Your task to perform on an android device: Go to privacy settings Image 0: 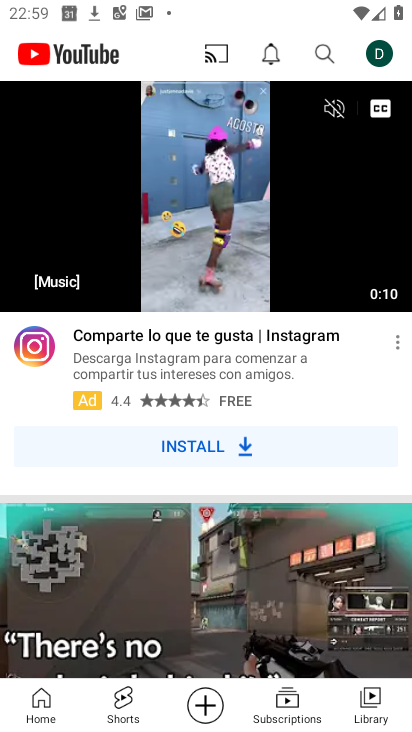
Step 0: press home button
Your task to perform on an android device: Go to privacy settings Image 1: 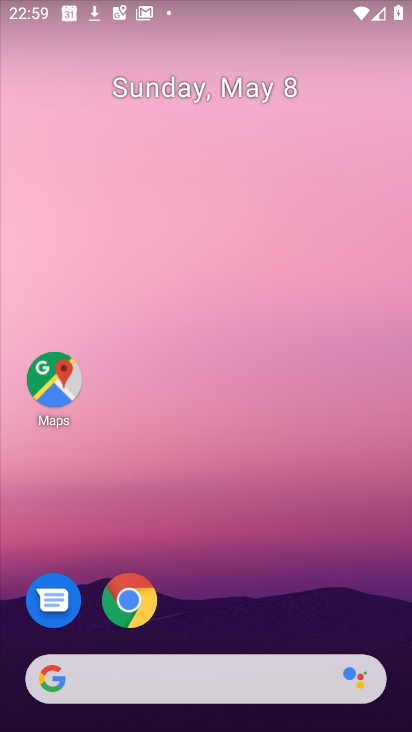
Step 1: drag from (248, 705) to (175, 201)
Your task to perform on an android device: Go to privacy settings Image 2: 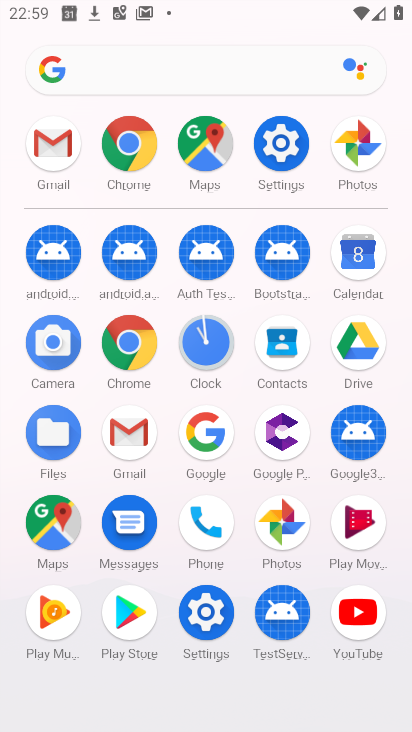
Step 2: click (273, 155)
Your task to perform on an android device: Go to privacy settings Image 3: 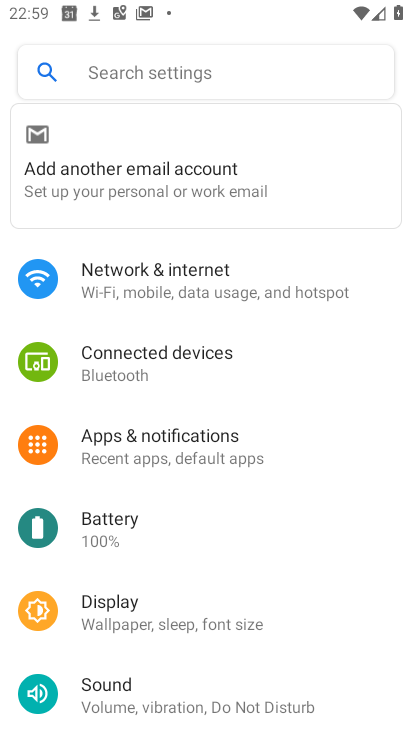
Step 3: drag from (234, 489) to (241, 282)
Your task to perform on an android device: Go to privacy settings Image 4: 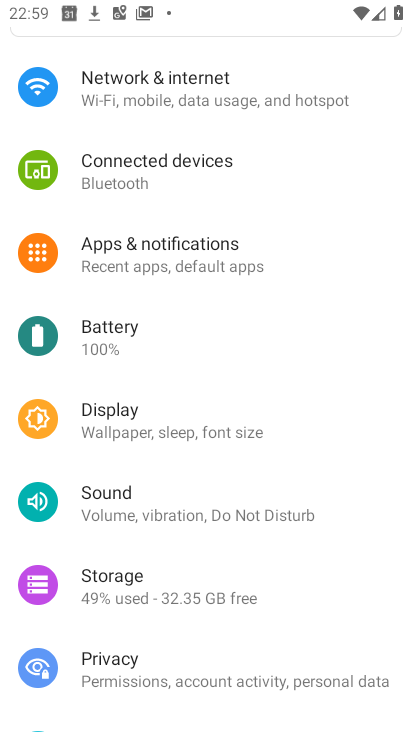
Step 4: click (130, 663)
Your task to perform on an android device: Go to privacy settings Image 5: 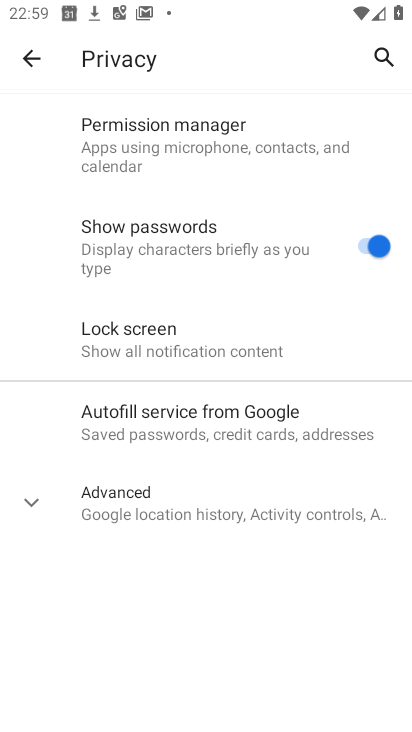
Step 5: task complete